Your task to perform on an android device: Open Youtube and go to "Your channel" Image 0: 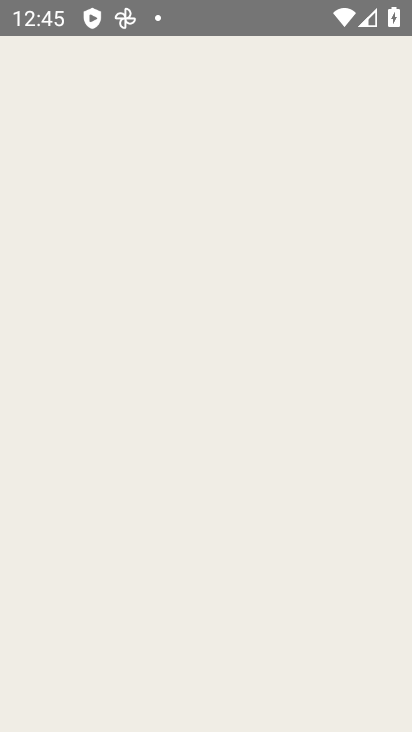
Step 0: press home button
Your task to perform on an android device: Open Youtube and go to "Your channel" Image 1: 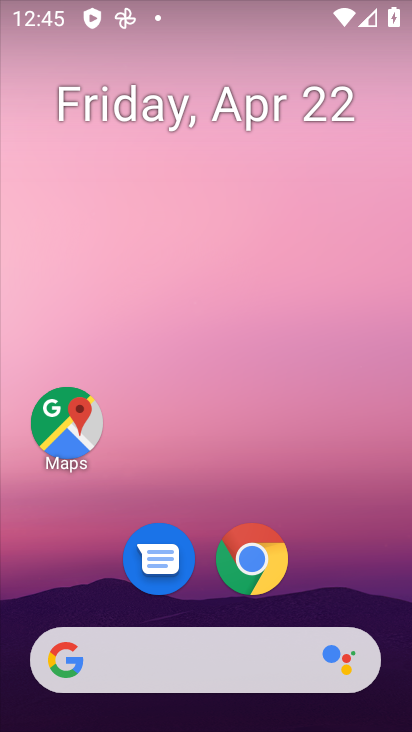
Step 1: drag from (346, 574) to (331, 141)
Your task to perform on an android device: Open Youtube and go to "Your channel" Image 2: 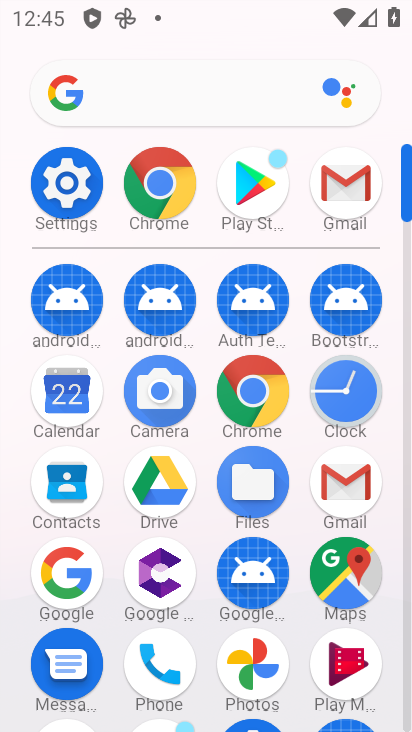
Step 2: drag from (396, 617) to (398, 357)
Your task to perform on an android device: Open Youtube and go to "Your channel" Image 3: 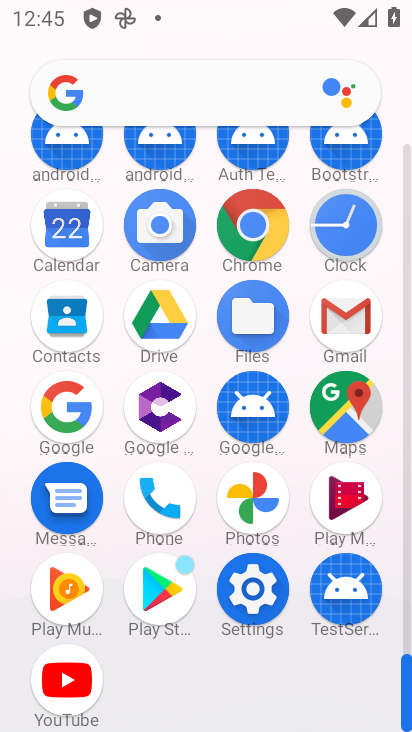
Step 3: click (68, 678)
Your task to perform on an android device: Open Youtube and go to "Your channel" Image 4: 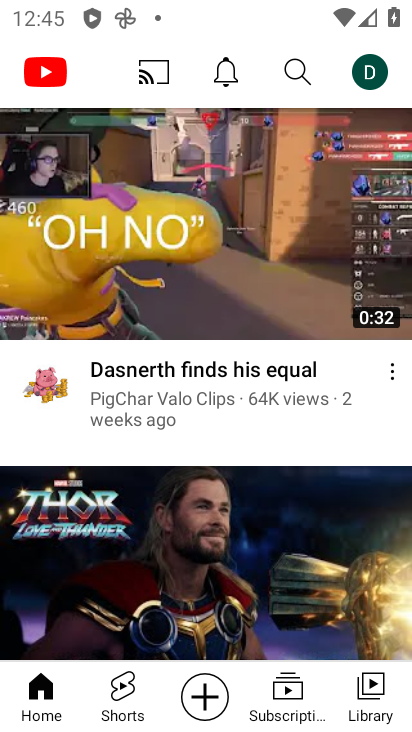
Step 4: click (366, 68)
Your task to perform on an android device: Open Youtube and go to "Your channel" Image 5: 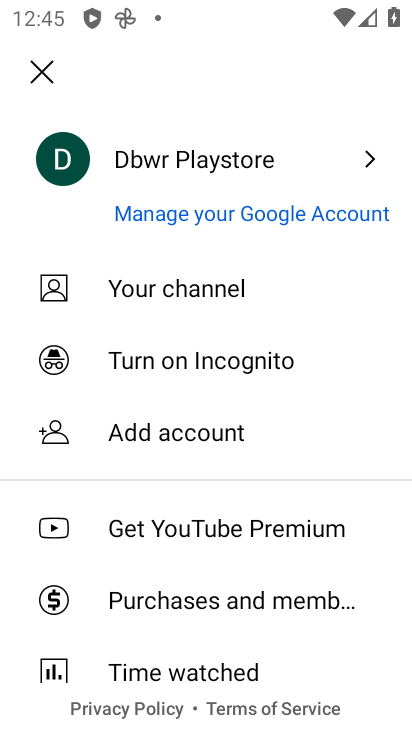
Step 5: click (196, 288)
Your task to perform on an android device: Open Youtube and go to "Your channel" Image 6: 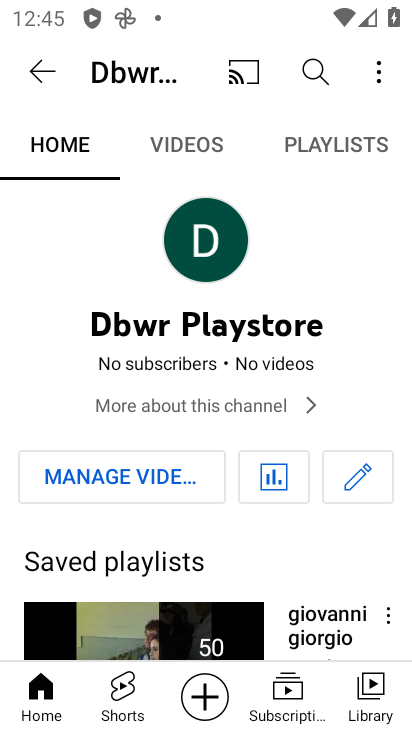
Step 6: task complete